Your task to perform on an android device: open the mobile data screen to see how much data has been used Image 0: 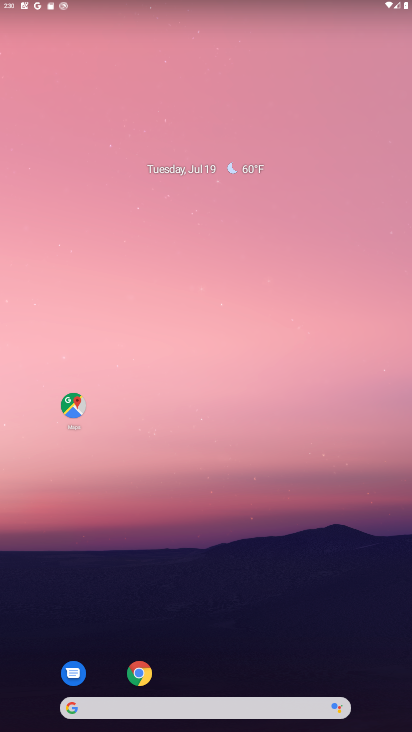
Step 0: drag from (221, 688) to (270, 97)
Your task to perform on an android device: open the mobile data screen to see how much data has been used Image 1: 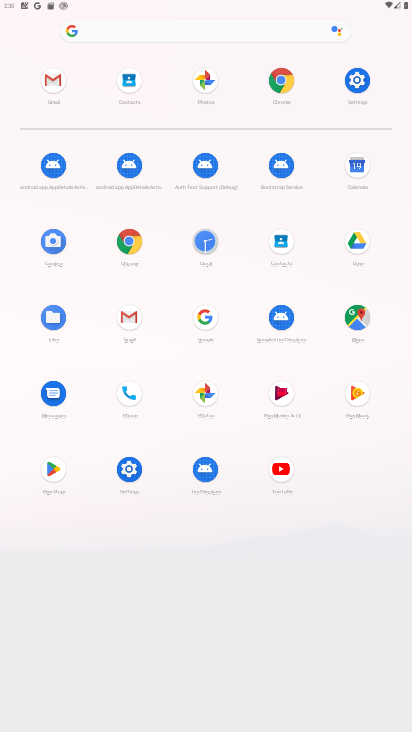
Step 1: click (363, 83)
Your task to perform on an android device: open the mobile data screen to see how much data has been used Image 2: 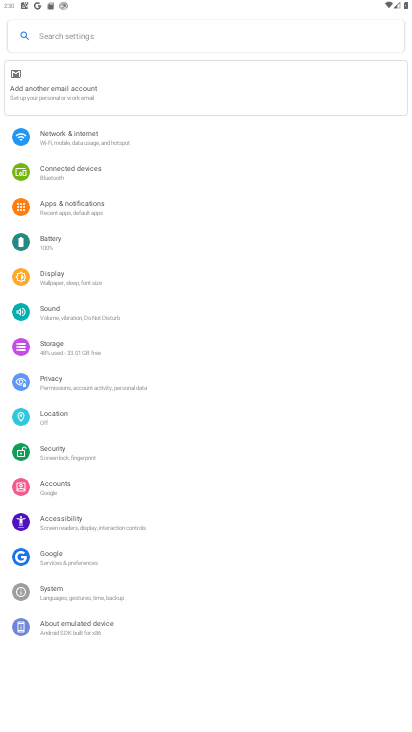
Step 2: click (125, 145)
Your task to perform on an android device: open the mobile data screen to see how much data has been used Image 3: 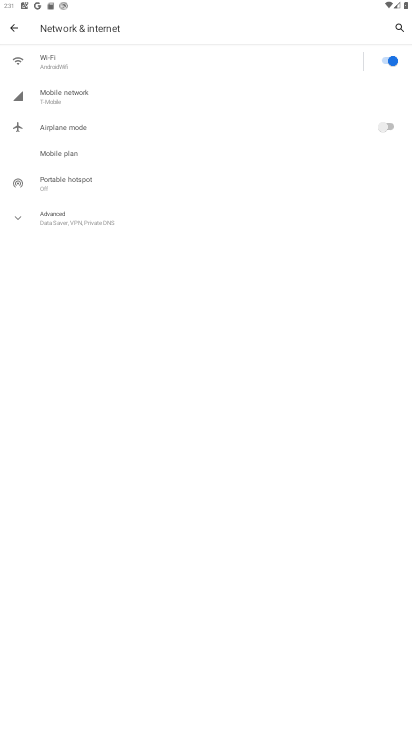
Step 3: click (112, 95)
Your task to perform on an android device: open the mobile data screen to see how much data has been used Image 4: 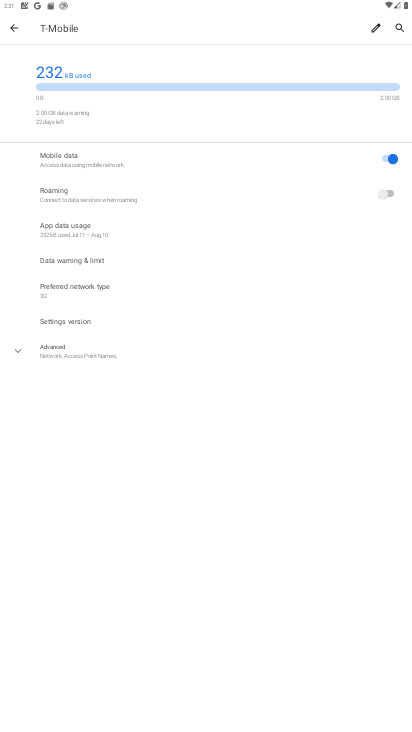
Step 4: task complete